Your task to perform on an android device: add a label to a message in the gmail app Image 0: 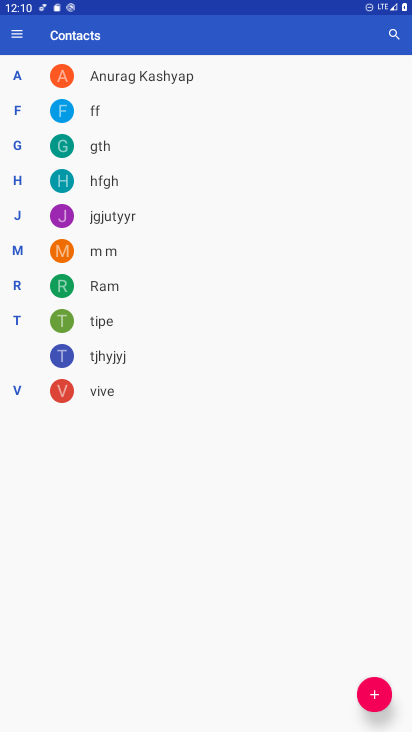
Step 0: press home button
Your task to perform on an android device: add a label to a message in the gmail app Image 1: 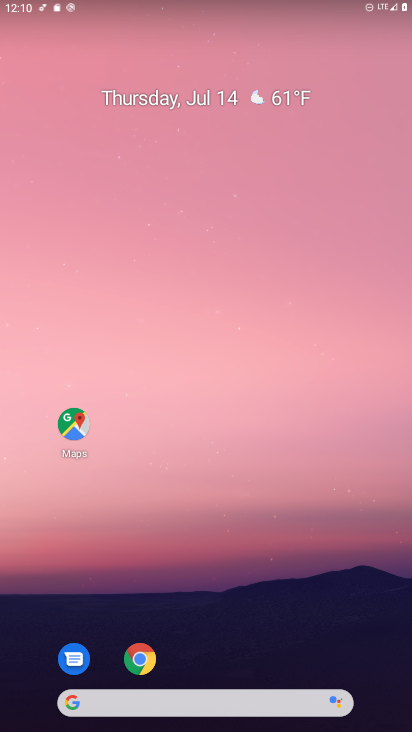
Step 1: drag from (382, 660) to (307, 154)
Your task to perform on an android device: add a label to a message in the gmail app Image 2: 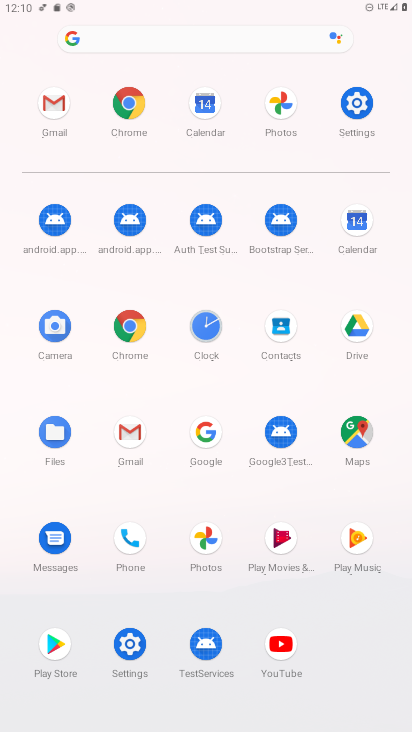
Step 2: click (126, 430)
Your task to perform on an android device: add a label to a message in the gmail app Image 3: 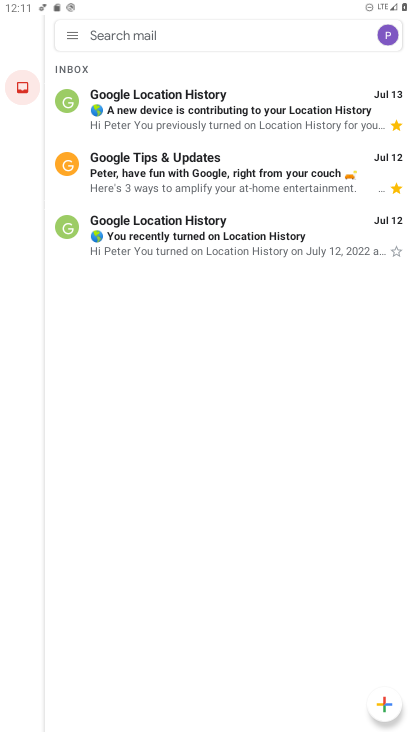
Step 3: click (163, 100)
Your task to perform on an android device: add a label to a message in the gmail app Image 4: 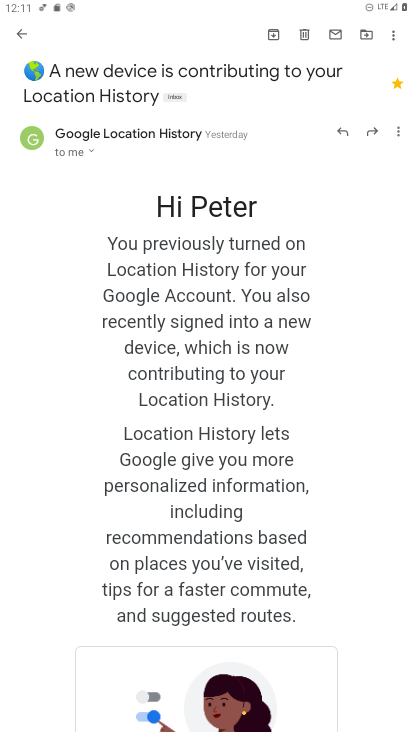
Step 4: click (395, 134)
Your task to perform on an android device: add a label to a message in the gmail app Image 5: 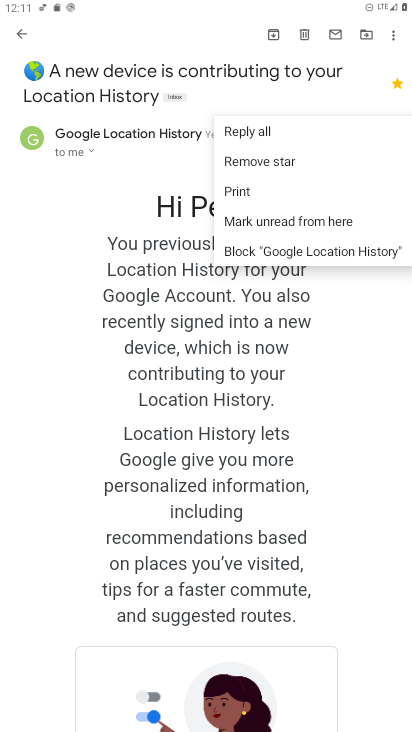
Step 5: click (347, 314)
Your task to perform on an android device: add a label to a message in the gmail app Image 6: 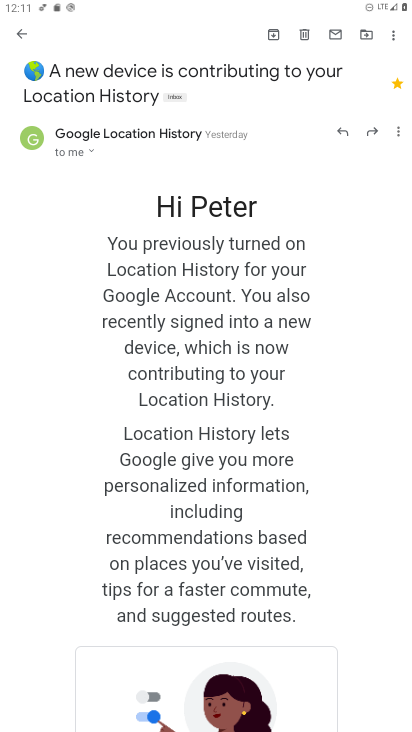
Step 6: click (392, 33)
Your task to perform on an android device: add a label to a message in the gmail app Image 7: 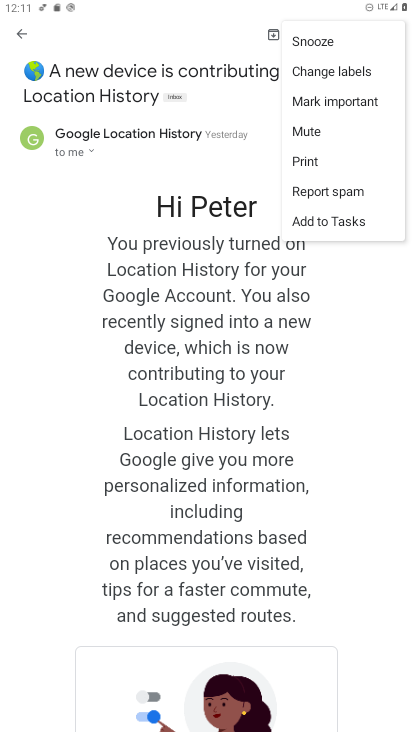
Step 7: click (314, 66)
Your task to perform on an android device: add a label to a message in the gmail app Image 8: 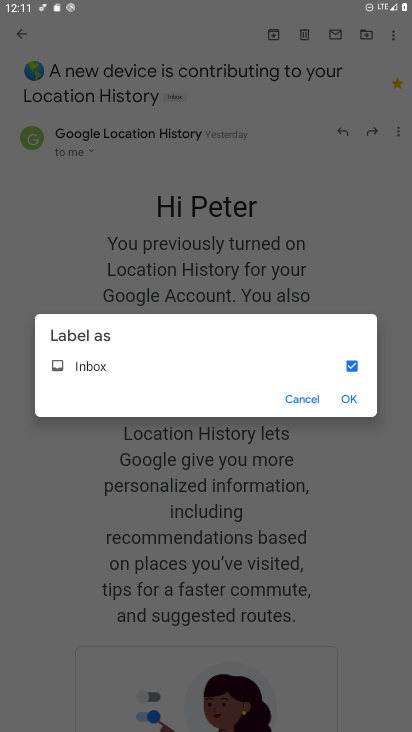
Step 8: click (355, 401)
Your task to perform on an android device: add a label to a message in the gmail app Image 9: 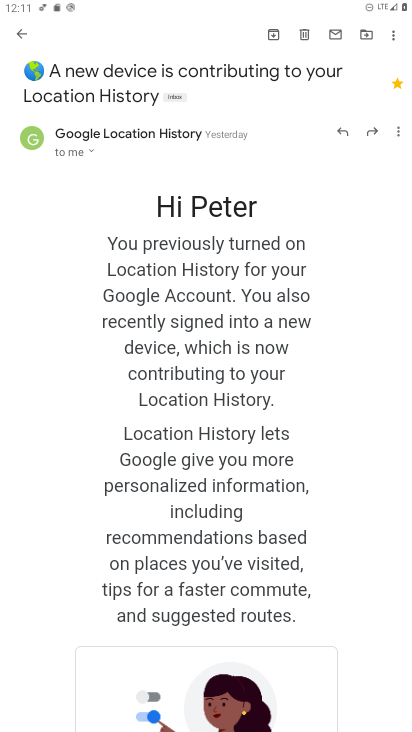
Step 9: task complete